Your task to perform on an android device: open sync settings in chrome Image 0: 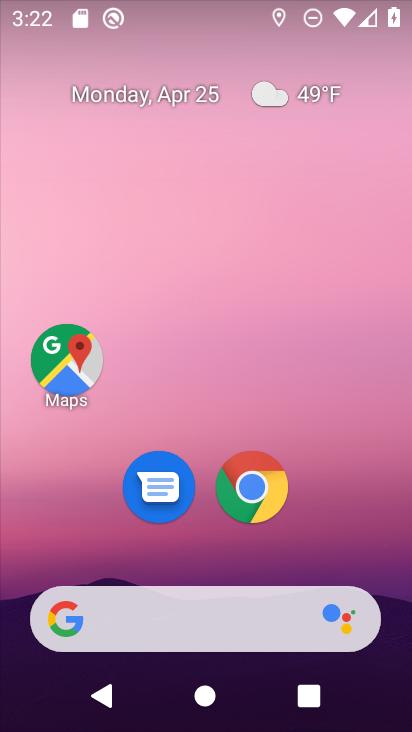
Step 0: click (254, 496)
Your task to perform on an android device: open sync settings in chrome Image 1: 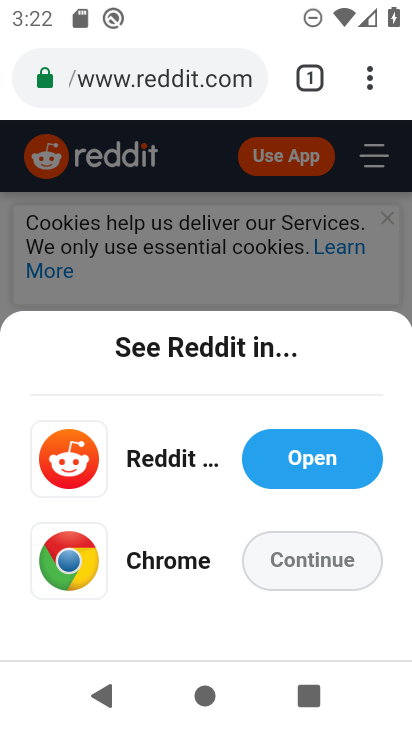
Step 1: drag from (369, 78) to (126, 542)
Your task to perform on an android device: open sync settings in chrome Image 2: 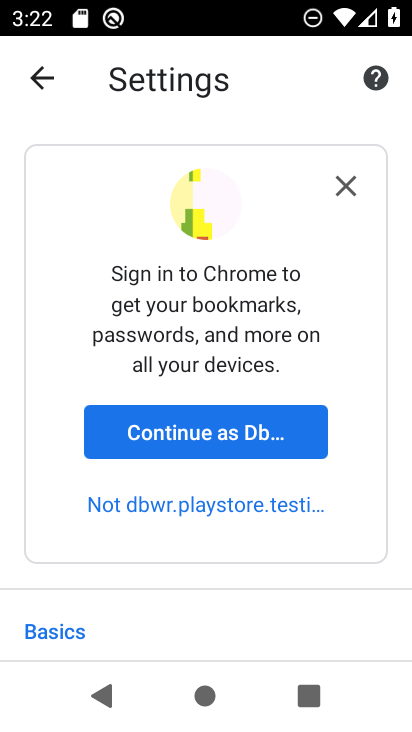
Step 2: click (187, 447)
Your task to perform on an android device: open sync settings in chrome Image 3: 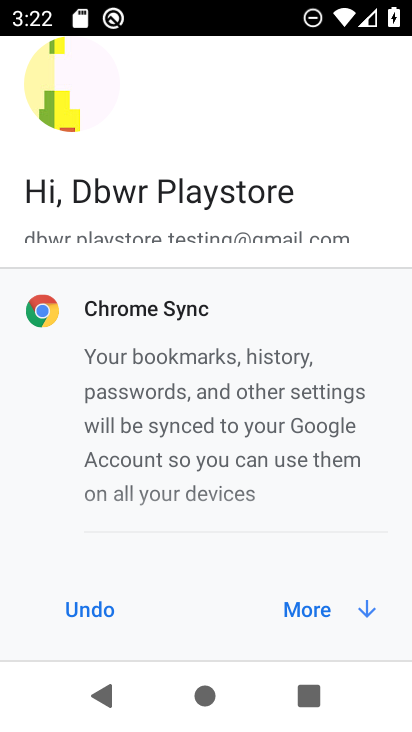
Step 3: click (317, 614)
Your task to perform on an android device: open sync settings in chrome Image 4: 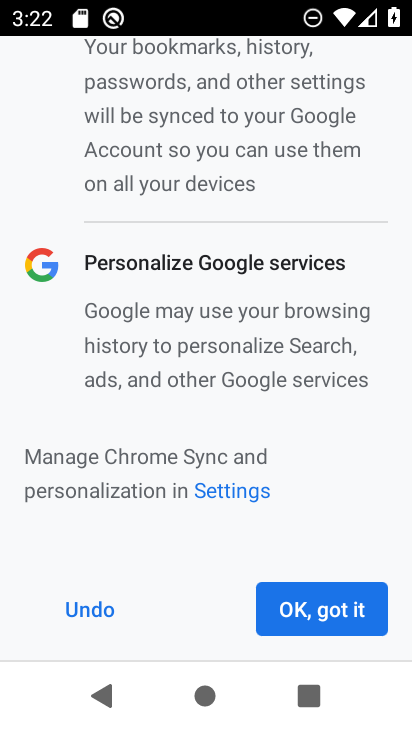
Step 4: click (317, 614)
Your task to perform on an android device: open sync settings in chrome Image 5: 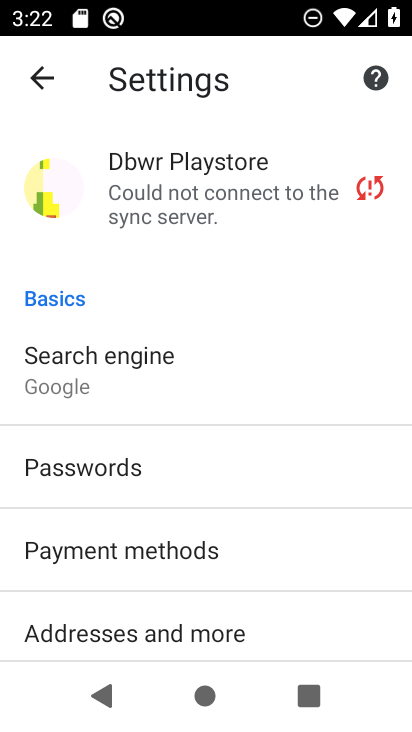
Step 5: click (170, 190)
Your task to perform on an android device: open sync settings in chrome Image 6: 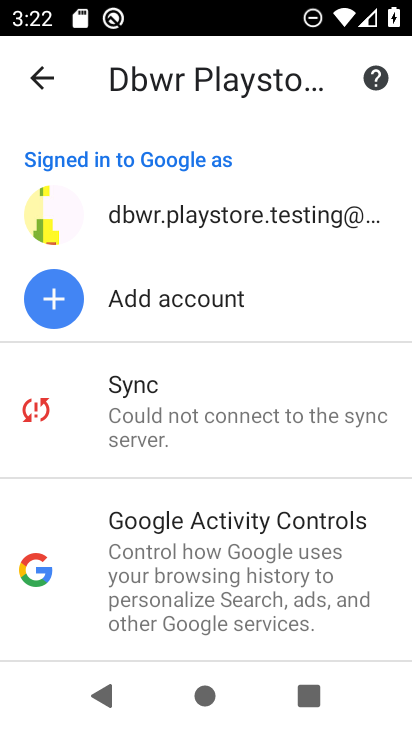
Step 6: click (157, 425)
Your task to perform on an android device: open sync settings in chrome Image 7: 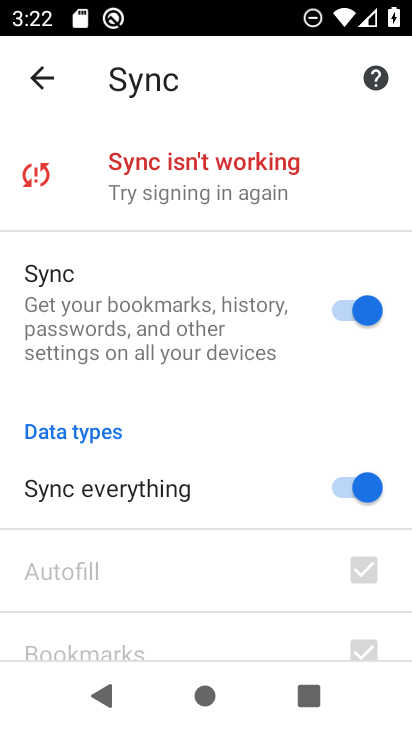
Step 7: task complete